Your task to perform on an android device: Show me the alarms in the clock app Image 0: 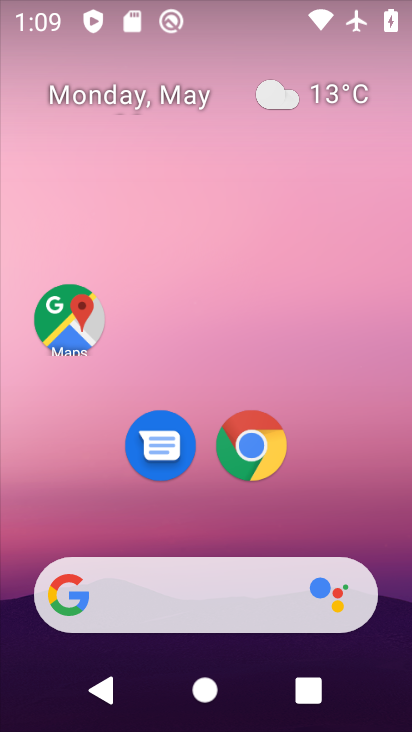
Step 0: drag from (397, 619) to (378, 362)
Your task to perform on an android device: Show me the alarms in the clock app Image 1: 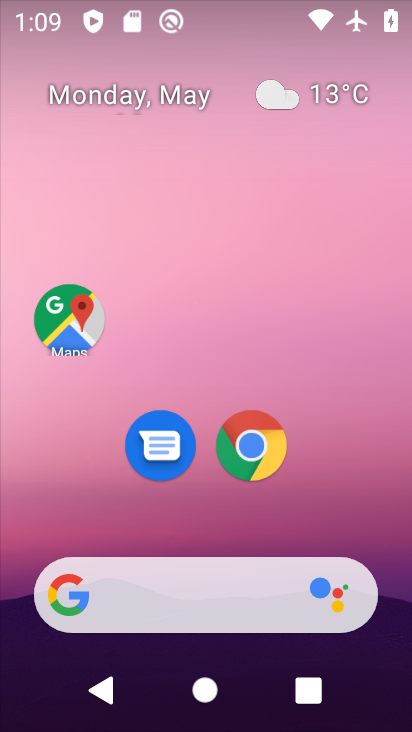
Step 1: drag from (392, 618) to (315, 123)
Your task to perform on an android device: Show me the alarms in the clock app Image 2: 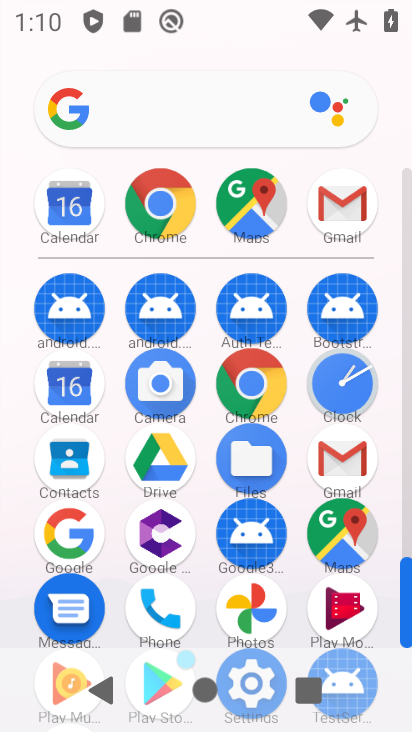
Step 2: click (331, 372)
Your task to perform on an android device: Show me the alarms in the clock app Image 3: 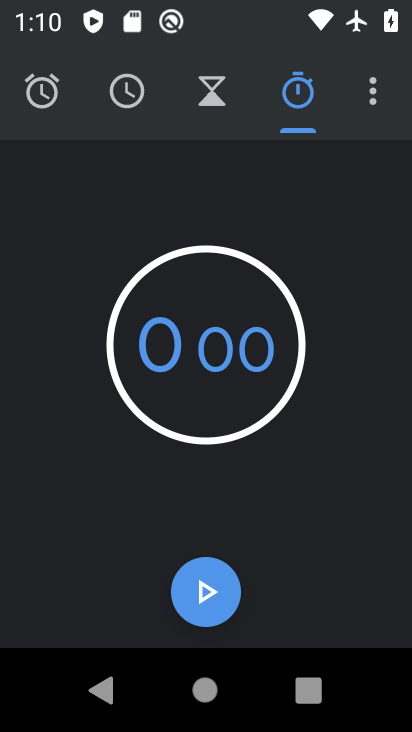
Step 3: click (380, 94)
Your task to perform on an android device: Show me the alarms in the clock app Image 4: 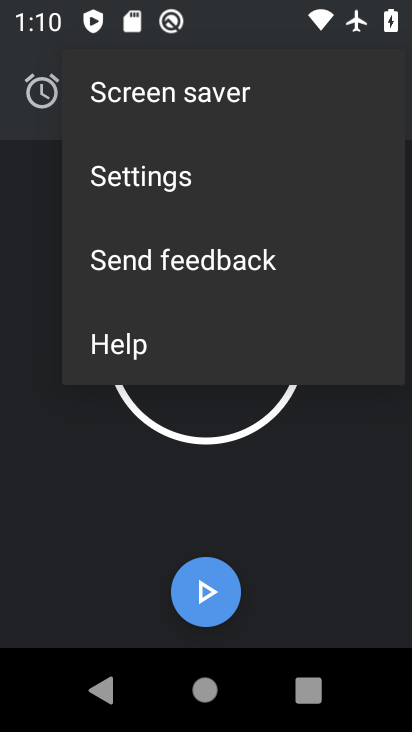
Step 4: click (240, 176)
Your task to perform on an android device: Show me the alarms in the clock app Image 5: 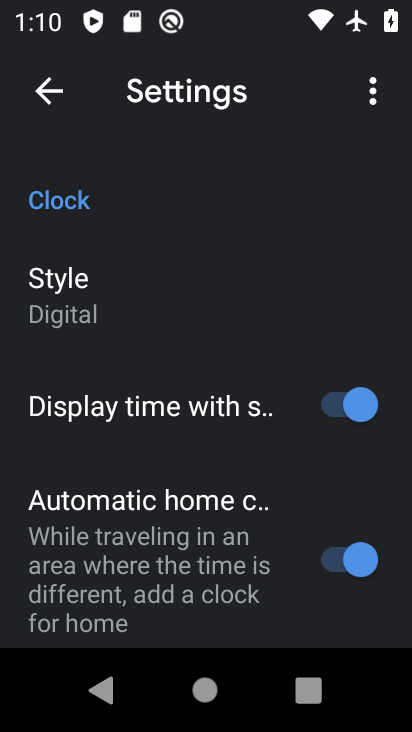
Step 5: task complete